Your task to perform on an android device: Open my contact list Image 0: 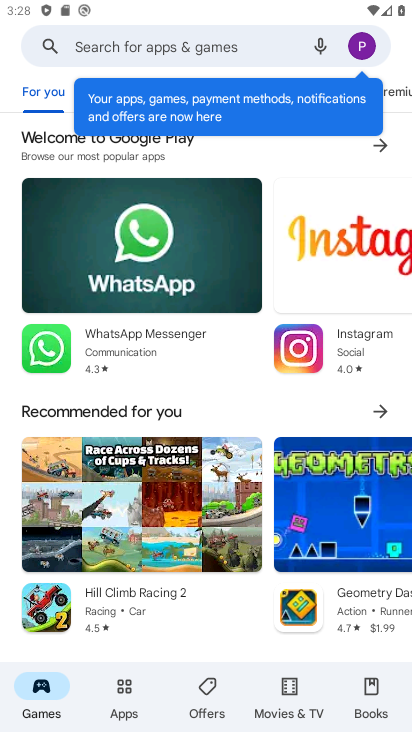
Step 0: press home button
Your task to perform on an android device: Open my contact list Image 1: 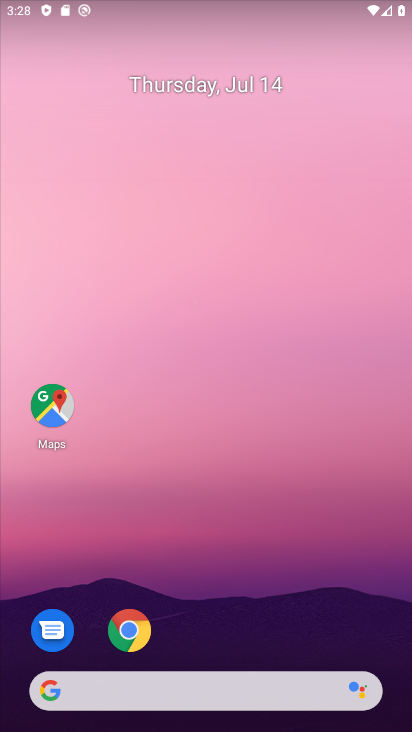
Step 1: drag from (243, 651) to (242, 94)
Your task to perform on an android device: Open my contact list Image 2: 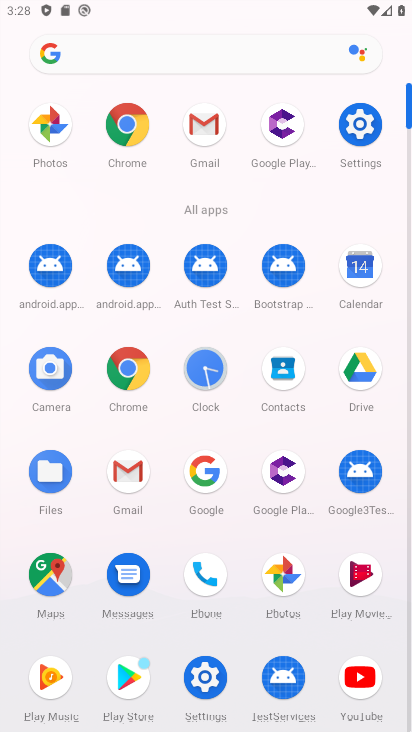
Step 2: click (290, 358)
Your task to perform on an android device: Open my contact list Image 3: 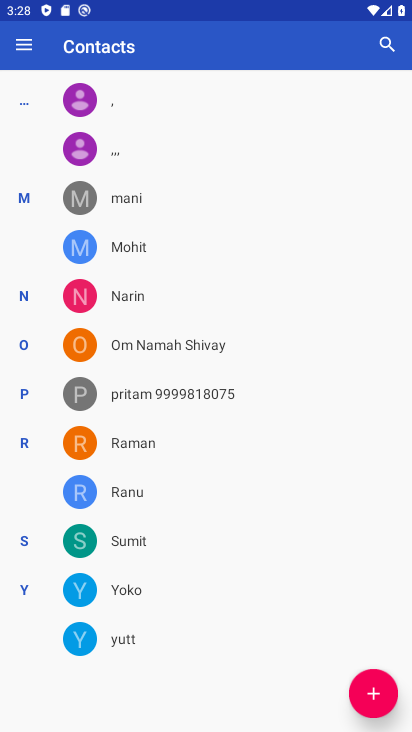
Step 3: task complete